Your task to perform on an android device: Open Google Chrome and click the shortcut for Amazon.com Image 0: 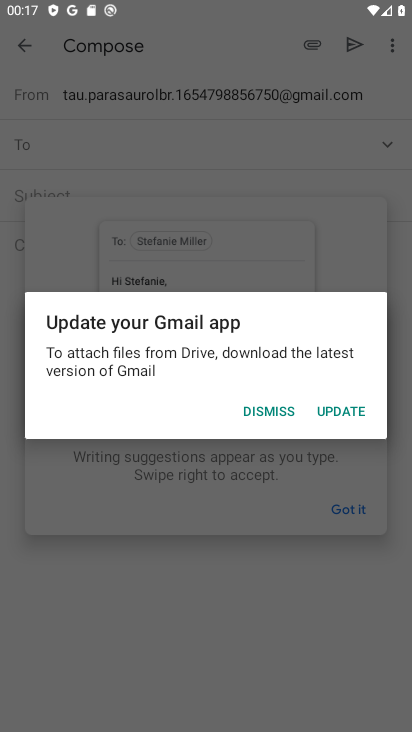
Step 0: click (343, 417)
Your task to perform on an android device: Open Google Chrome and click the shortcut for Amazon.com Image 1: 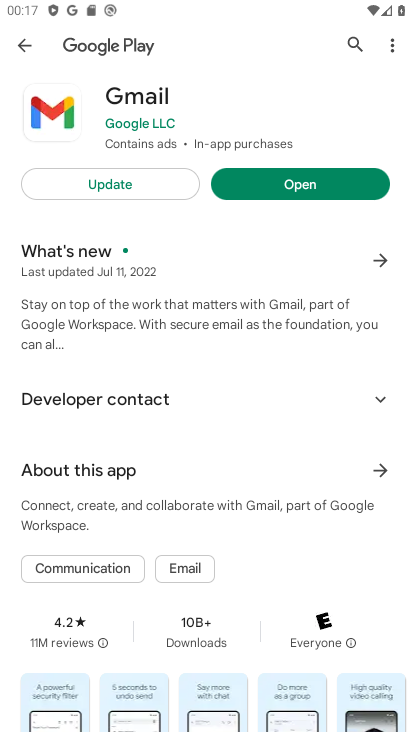
Step 1: click (156, 189)
Your task to perform on an android device: Open Google Chrome and click the shortcut for Amazon.com Image 2: 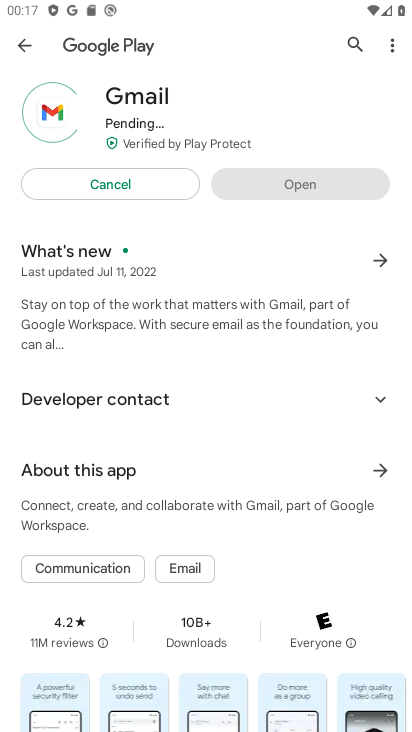
Step 2: press home button
Your task to perform on an android device: Open Google Chrome and click the shortcut for Amazon.com Image 3: 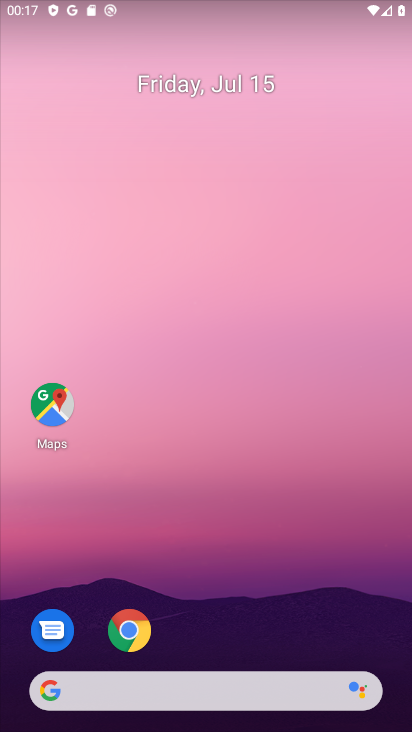
Step 3: click (121, 644)
Your task to perform on an android device: Open Google Chrome and click the shortcut for Amazon.com Image 4: 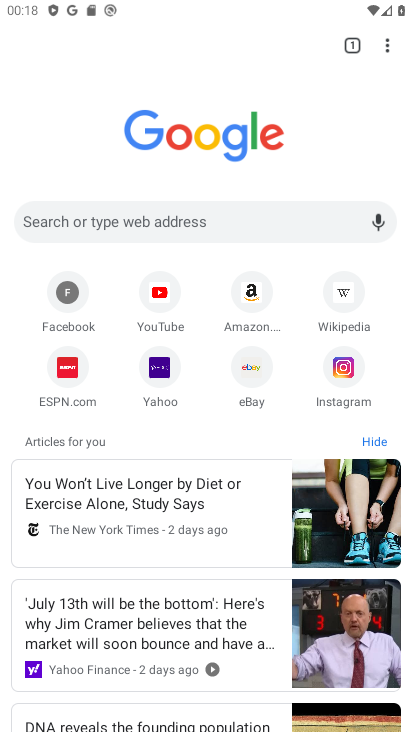
Step 4: click (243, 292)
Your task to perform on an android device: Open Google Chrome and click the shortcut for Amazon.com Image 5: 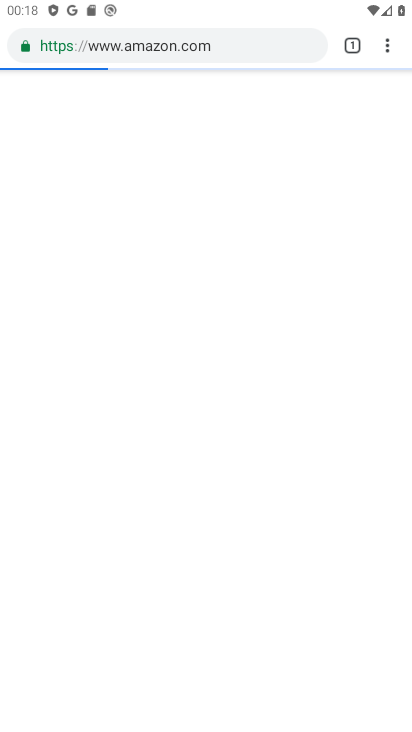
Step 5: task complete